Your task to perform on an android device: open a bookmark in the chrome app Image 0: 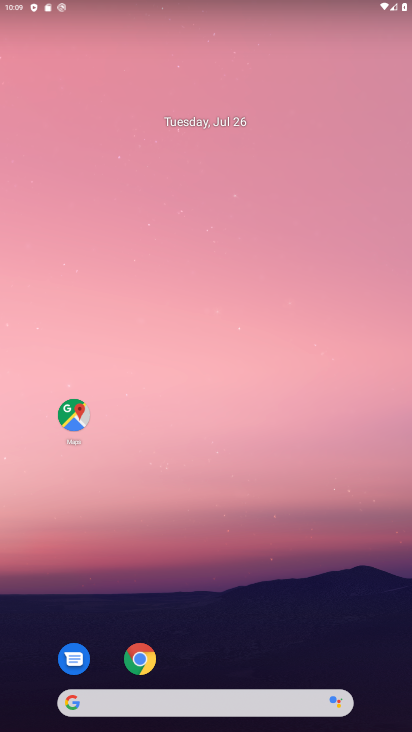
Step 0: click (147, 666)
Your task to perform on an android device: open a bookmark in the chrome app Image 1: 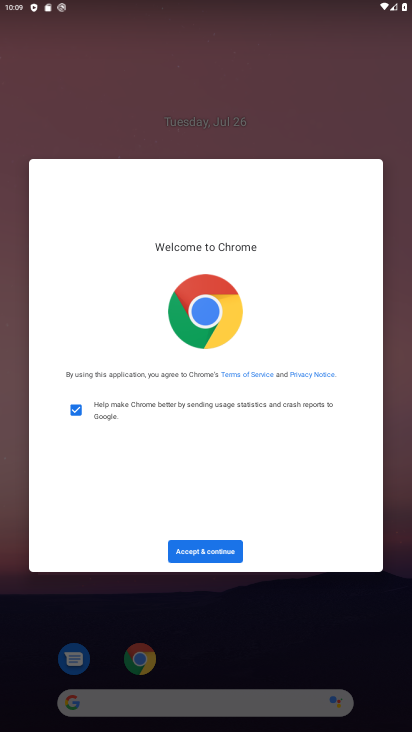
Step 1: click (195, 554)
Your task to perform on an android device: open a bookmark in the chrome app Image 2: 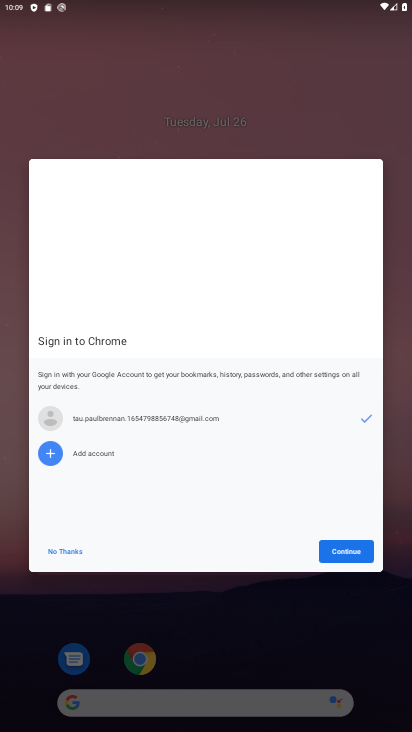
Step 2: click (328, 552)
Your task to perform on an android device: open a bookmark in the chrome app Image 3: 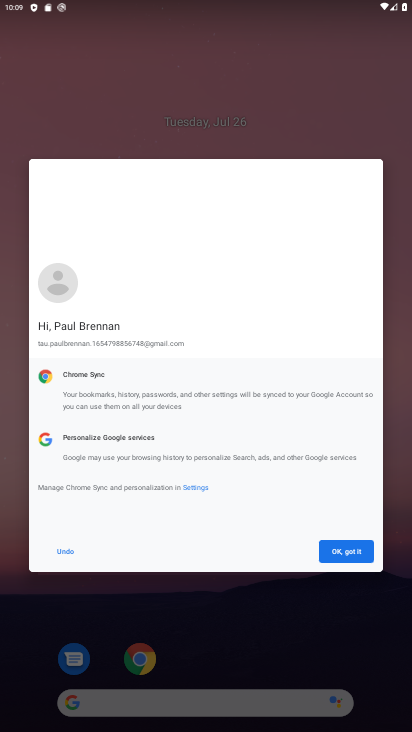
Step 3: click (328, 552)
Your task to perform on an android device: open a bookmark in the chrome app Image 4: 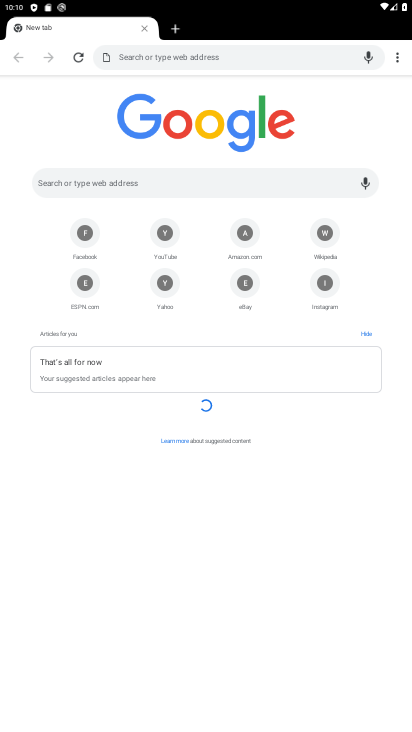
Step 4: click (409, 65)
Your task to perform on an android device: open a bookmark in the chrome app Image 5: 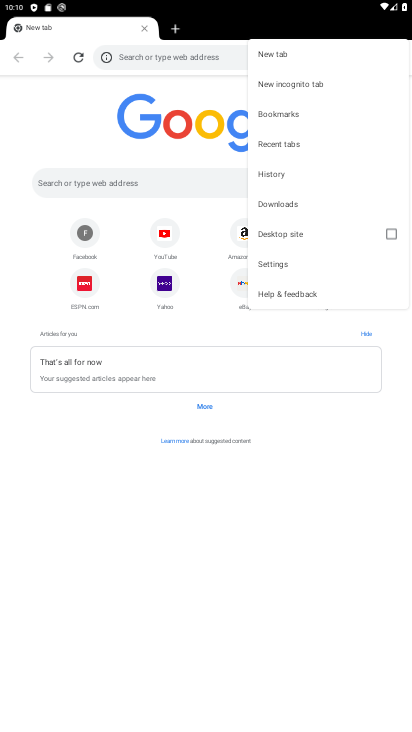
Step 5: click (340, 108)
Your task to perform on an android device: open a bookmark in the chrome app Image 6: 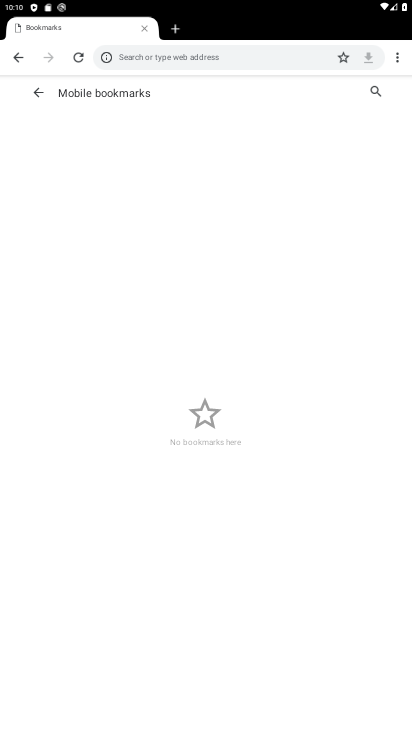
Step 6: task complete